Your task to perform on an android device: create a new album in the google photos Image 0: 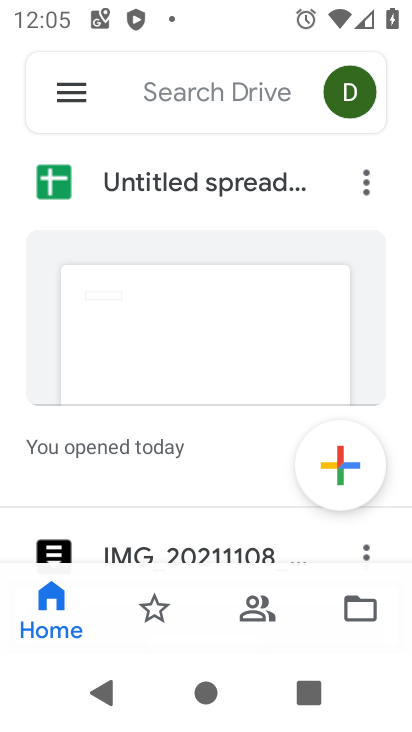
Step 0: press home button
Your task to perform on an android device: create a new album in the google photos Image 1: 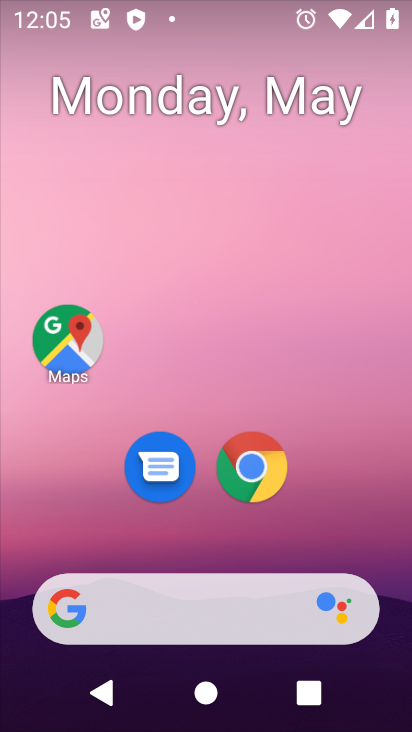
Step 1: drag from (365, 567) to (355, 5)
Your task to perform on an android device: create a new album in the google photos Image 2: 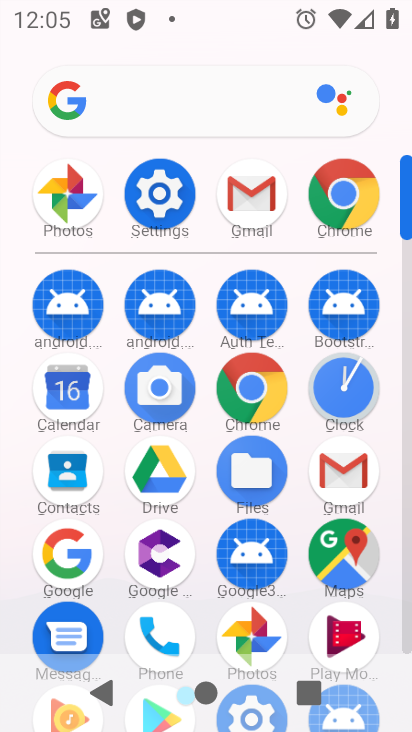
Step 2: click (80, 193)
Your task to perform on an android device: create a new album in the google photos Image 3: 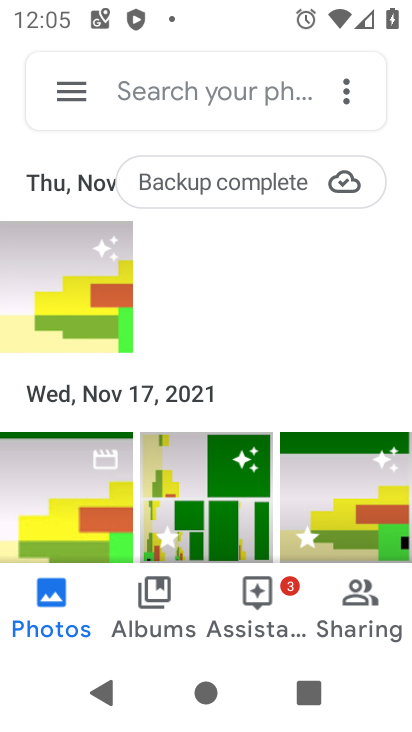
Step 3: click (189, 478)
Your task to perform on an android device: create a new album in the google photos Image 4: 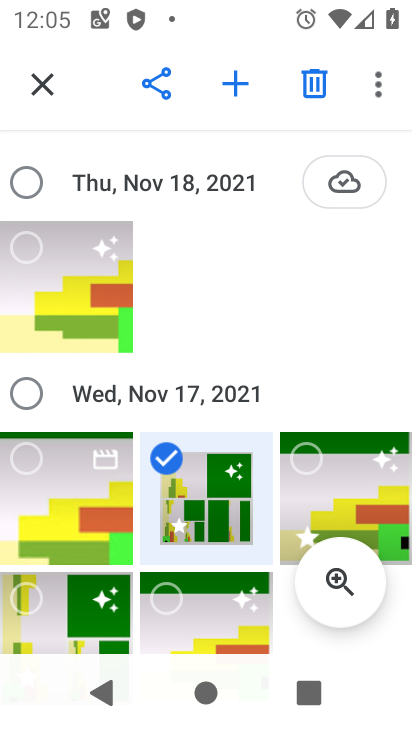
Step 4: click (312, 468)
Your task to perform on an android device: create a new album in the google photos Image 5: 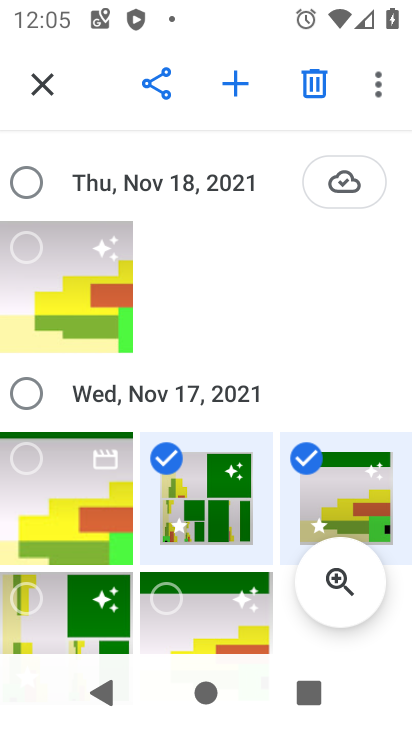
Step 5: click (240, 85)
Your task to perform on an android device: create a new album in the google photos Image 6: 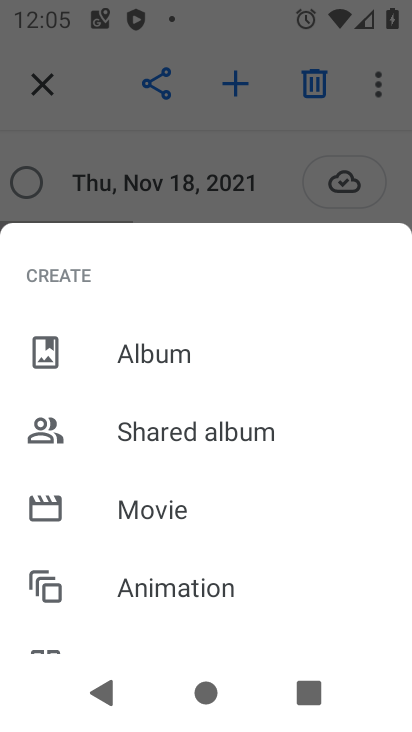
Step 6: click (133, 361)
Your task to perform on an android device: create a new album in the google photos Image 7: 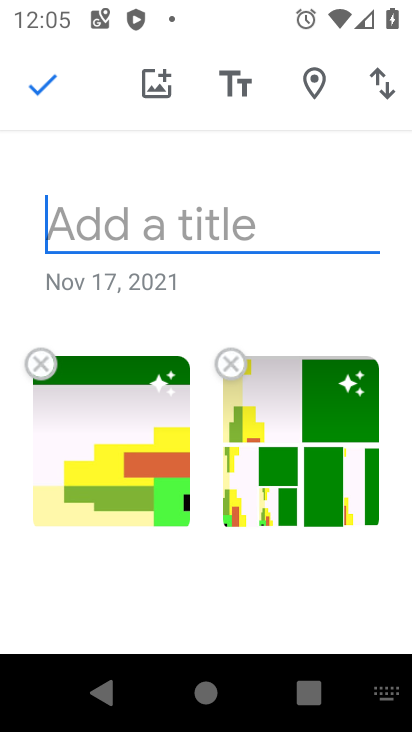
Step 7: click (134, 218)
Your task to perform on an android device: create a new album in the google photos Image 8: 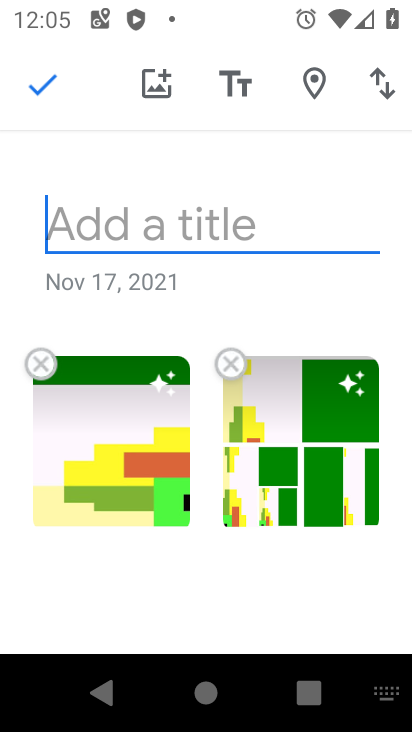
Step 8: type "new 2"
Your task to perform on an android device: create a new album in the google photos Image 9: 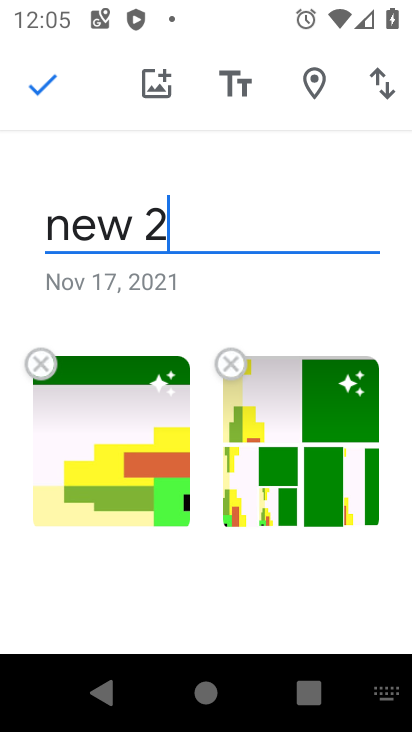
Step 9: click (34, 95)
Your task to perform on an android device: create a new album in the google photos Image 10: 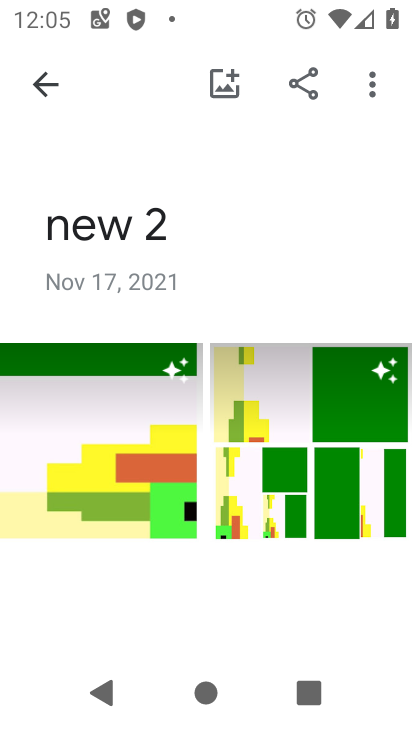
Step 10: task complete